Your task to perform on an android device: delete the emails in spam in the gmail app Image 0: 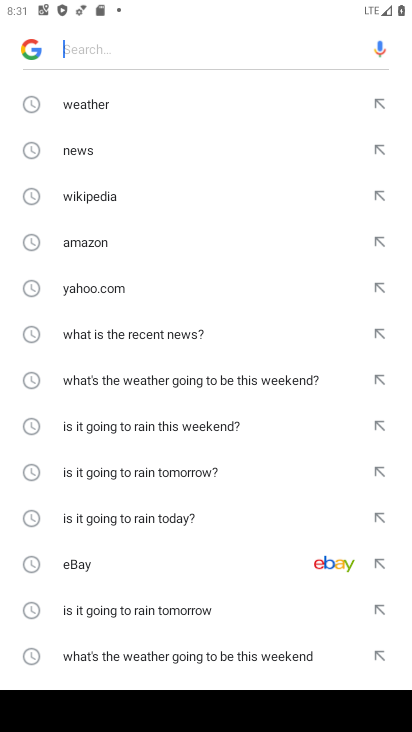
Step 0: press back button
Your task to perform on an android device: delete the emails in spam in the gmail app Image 1: 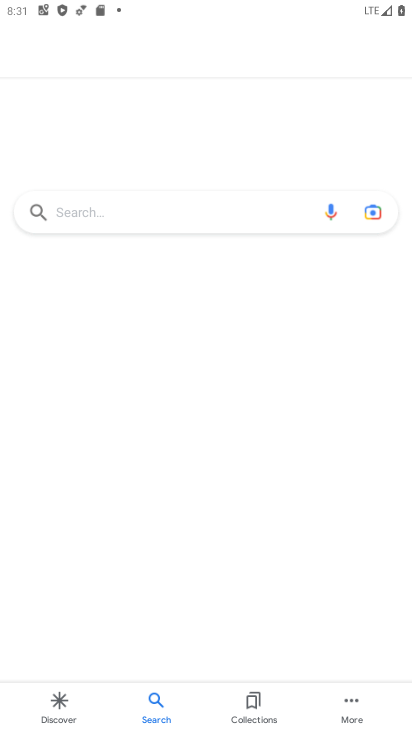
Step 1: press back button
Your task to perform on an android device: delete the emails in spam in the gmail app Image 2: 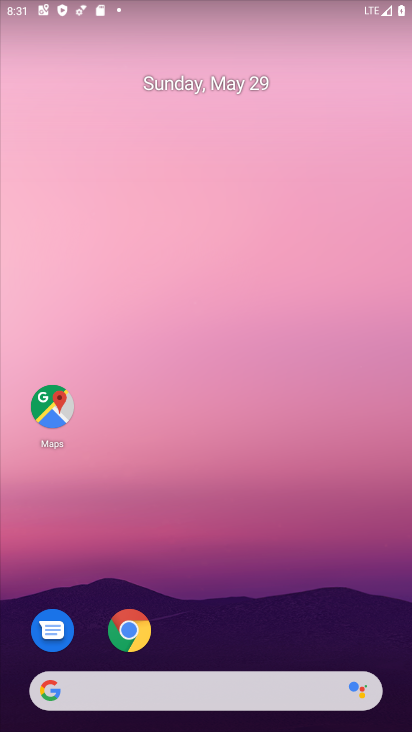
Step 2: drag from (223, 652) to (138, 192)
Your task to perform on an android device: delete the emails in spam in the gmail app Image 3: 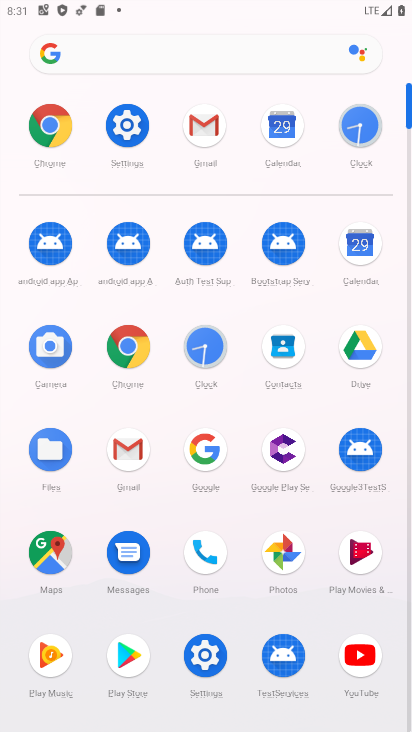
Step 3: click (131, 458)
Your task to perform on an android device: delete the emails in spam in the gmail app Image 4: 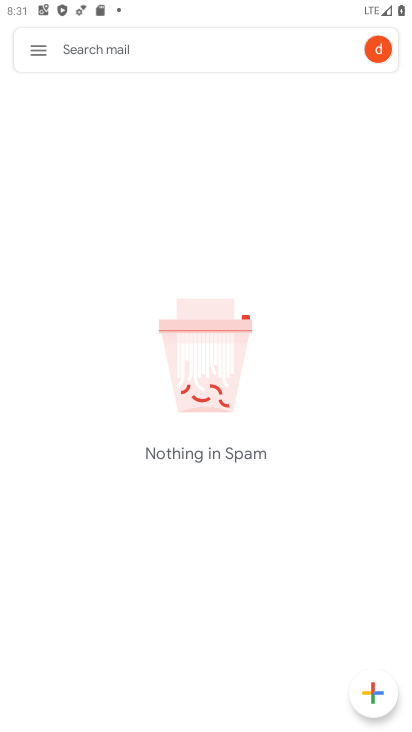
Step 4: click (24, 57)
Your task to perform on an android device: delete the emails in spam in the gmail app Image 5: 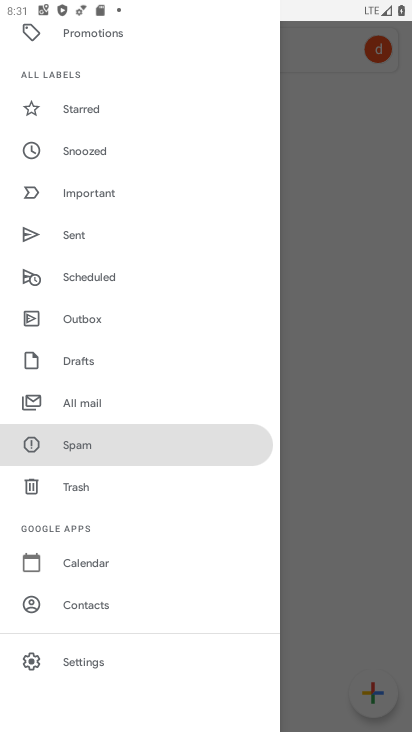
Step 5: click (72, 437)
Your task to perform on an android device: delete the emails in spam in the gmail app Image 6: 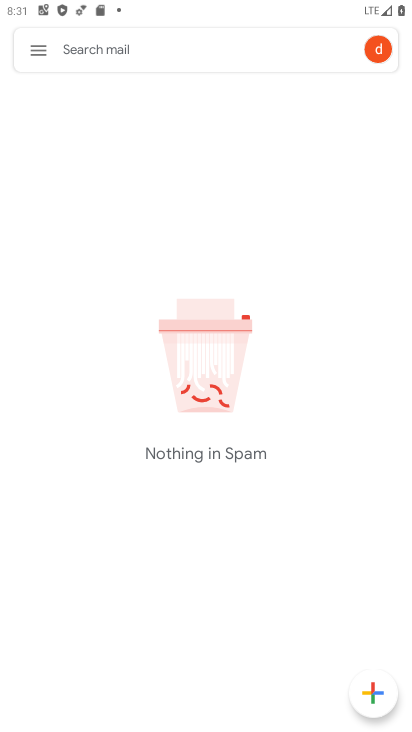
Step 6: task complete